Your task to perform on an android device: star an email in the gmail app Image 0: 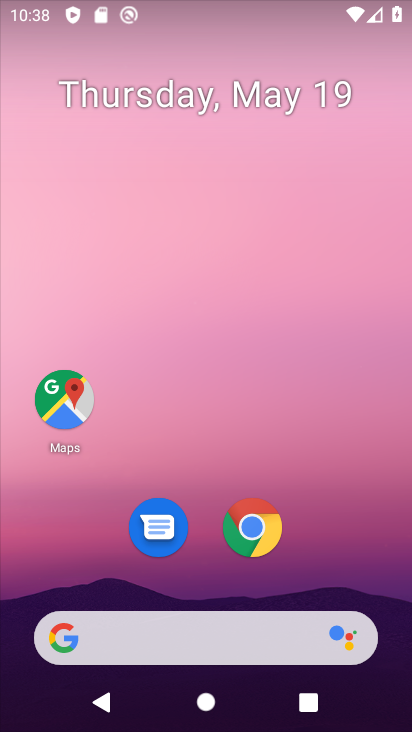
Step 0: drag from (210, 579) to (279, 0)
Your task to perform on an android device: star an email in the gmail app Image 1: 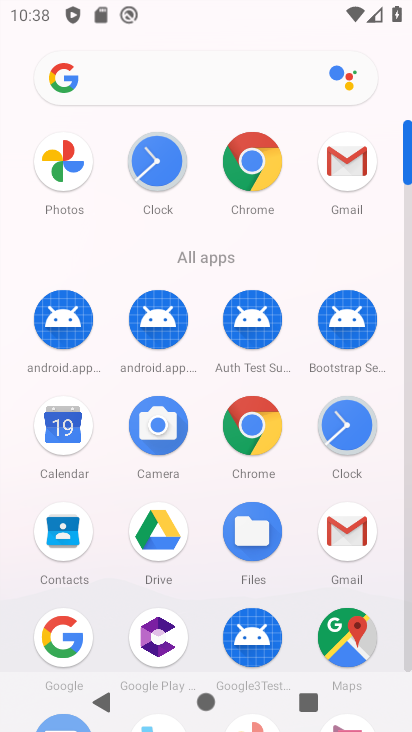
Step 1: click (345, 534)
Your task to perform on an android device: star an email in the gmail app Image 2: 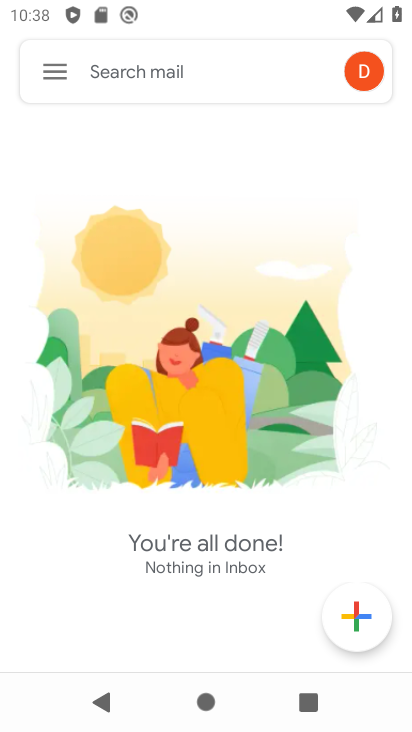
Step 2: click (60, 68)
Your task to perform on an android device: star an email in the gmail app Image 3: 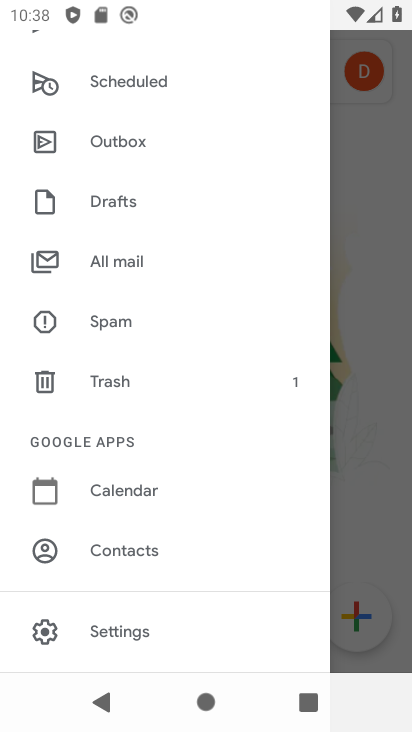
Step 3: click (136, 263)
Your task to perform on an android device: star an email in the gmail app Image 4: 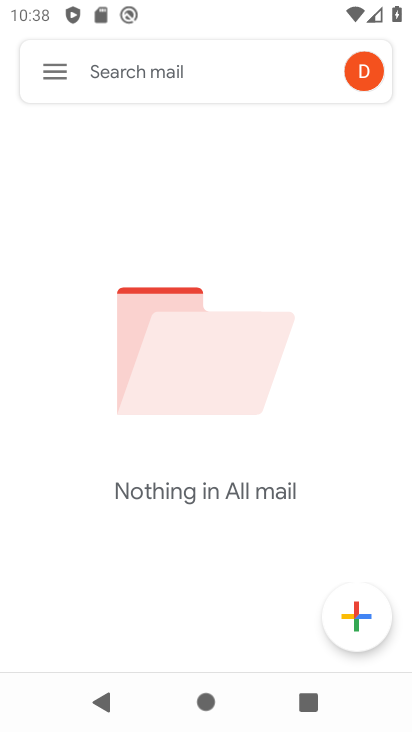
Step 4: click (56, 62)
Your task to perform on an android device: star an email in the gmail app Image 5: 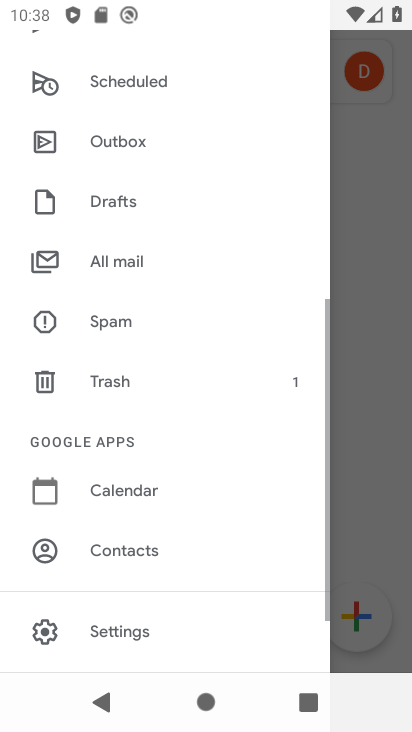
Step 5: click (161, 393)
Your task to perform on an android device: star an email in the gmail app Image 6: 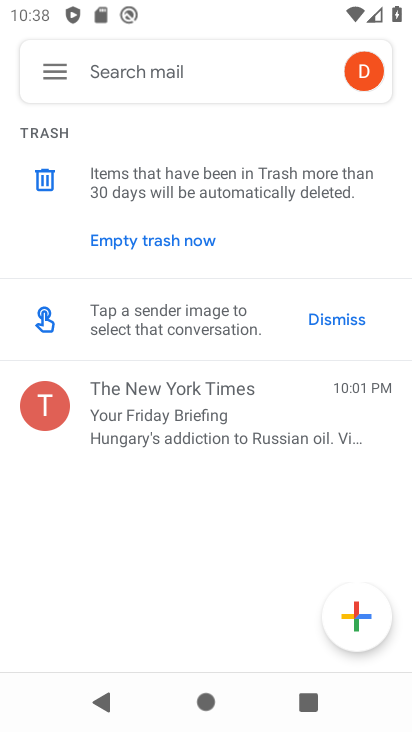
Step 6: click (54, 414)
Your task to perform on an android device: star an email in the gmail app Image 7: 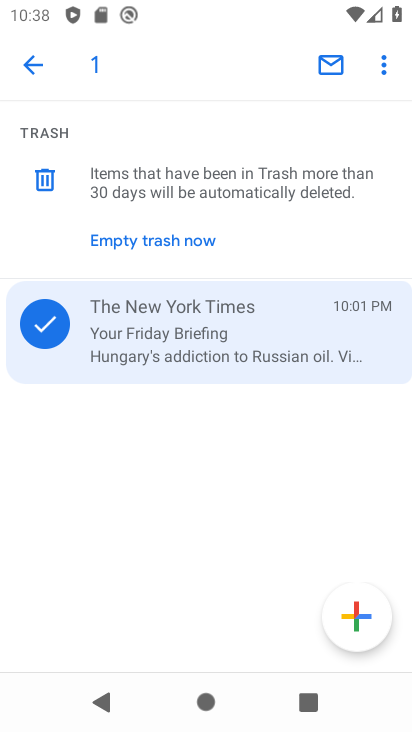
Step 7: click (377, 57)
Your task to perform on an android device: star an email in the gmail app Image 8: 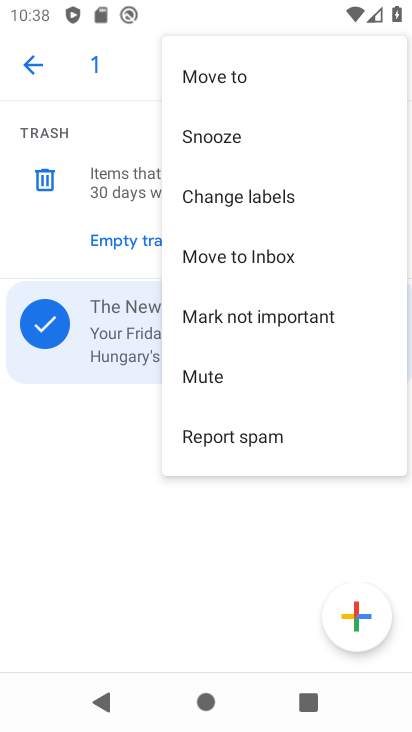
Step 8: click (266, 259)
Your task to perform on an android device: star an email in the gmail app Image 9: 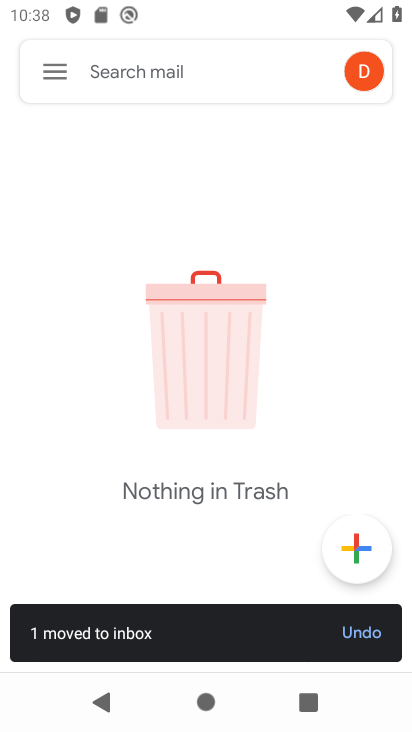
Step 9: click (64, 79)
Your task to perform on an android device: star an email in the gmail app Image 10: 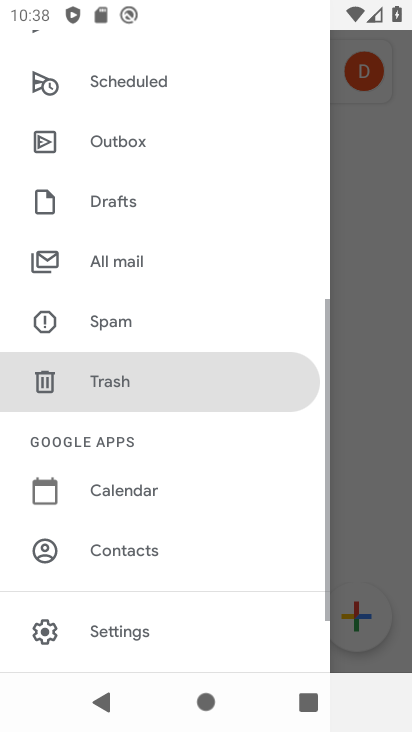
Step 10: drag from (146, 136) to (128, 648)
Your task to perform on an android device: star an email in the gmail app Image 11: 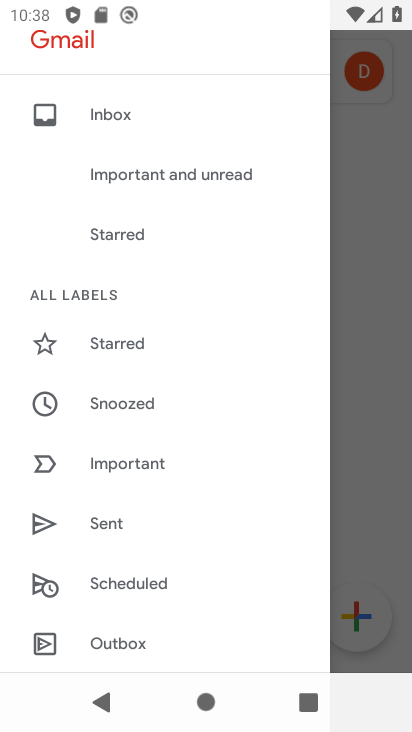
Step 11: drag from (142, 227) to (133, 458)
Your task to perform on an android device: star an email in the gmail app Image 12: 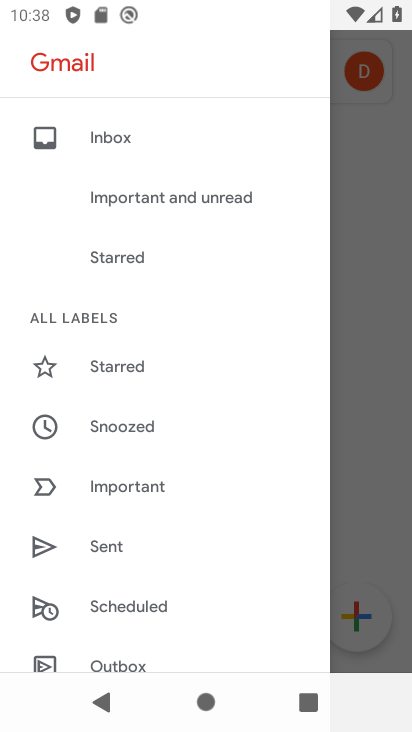
Step 12: click (115, 141)
Your task to perform on an android device: star an email in the gmail app Image 13: 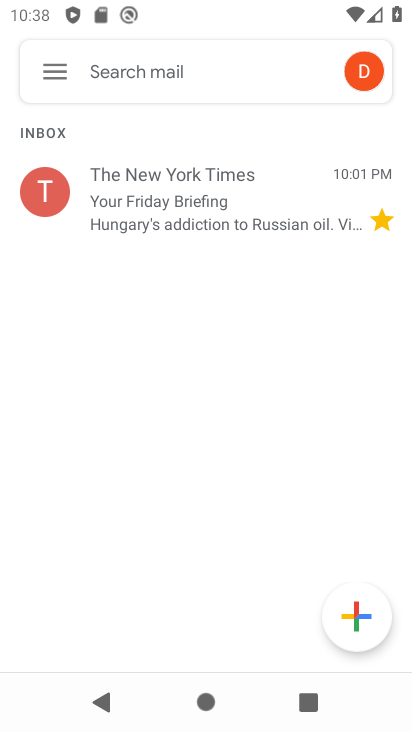
Step 13: task complete